Your task to perform on an android device: open app "Move to iOS" (install if not already installed) and enter user name: "Decca@icloud.com" and password: "reabbreviate" Image 0: 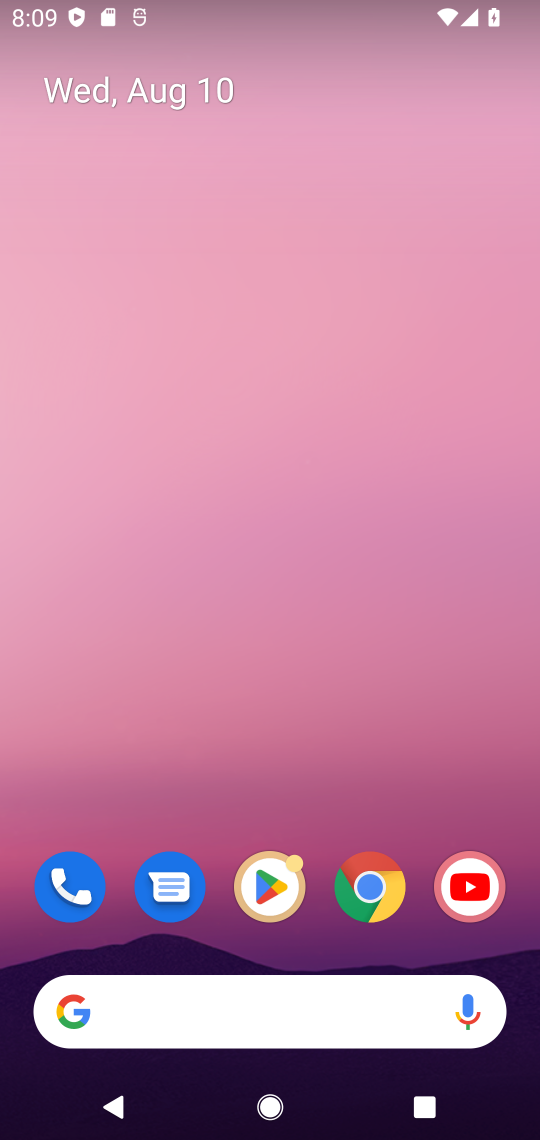
Step 0: drag from (319, 939) to (287, 11)
Your task to perform on an android device: open app "Move to iOS" (install if not already installed) and enter user name: "Decca@icloud.com" and password: "reabbreviate" Image 1: 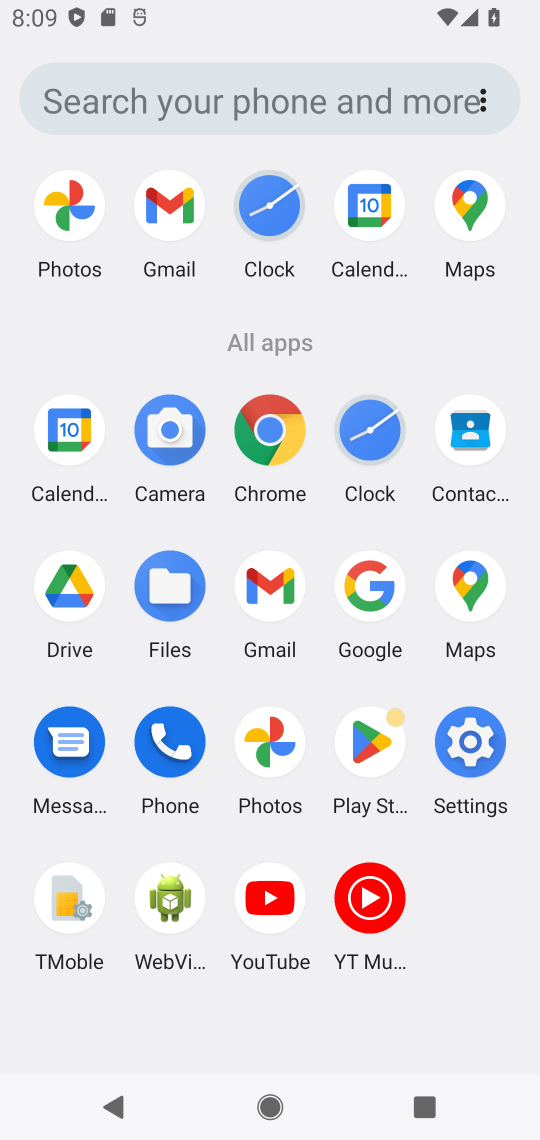
Step 1: click (391, 723)
Your task to perform on an android device: open app "Move to iOS" (install if not already installed) and enter user name: "Decca@icloud.com" and password: "reabbreviate" Image 2: 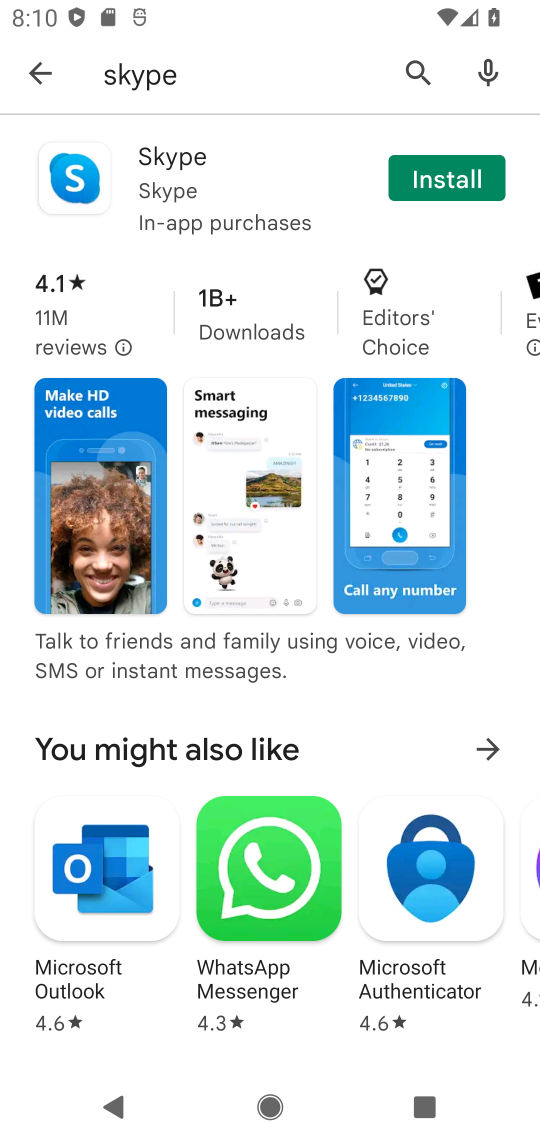
Step 2: click (384, 79)
Your task to perform on an android device: open app "Move to iOS" (install if not already installed) and enter user name: "Decca@icloud.com" and password: "reabbreviate" Image 3: 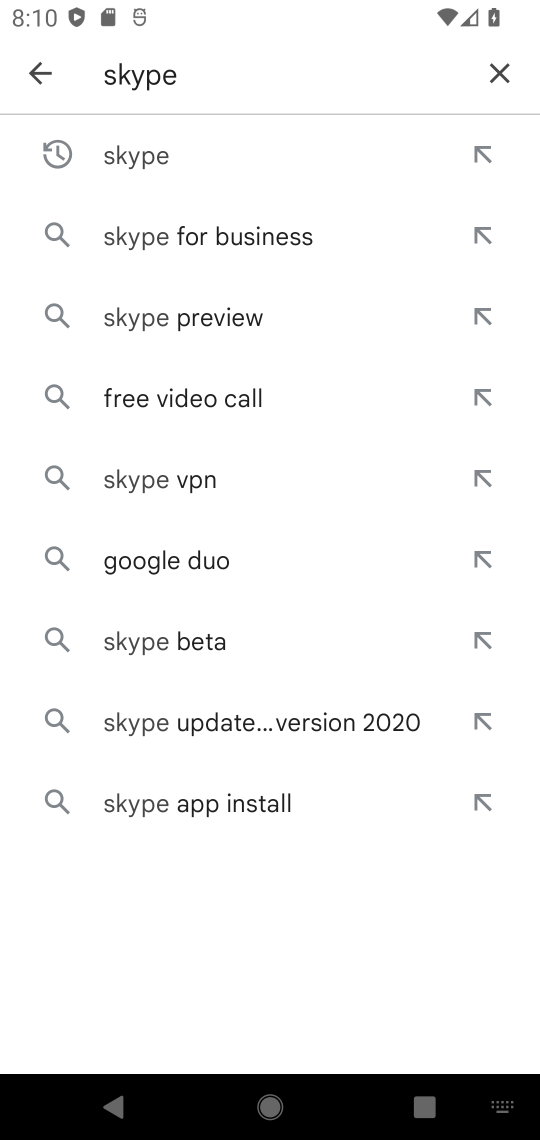
Step 3: click (523, 62)
Your task to perform on an android device: open app "Move to iOS" (install if not already installed) and enter user name: "Decca@icloud.com" and password: "reabbreviate" Image 4: 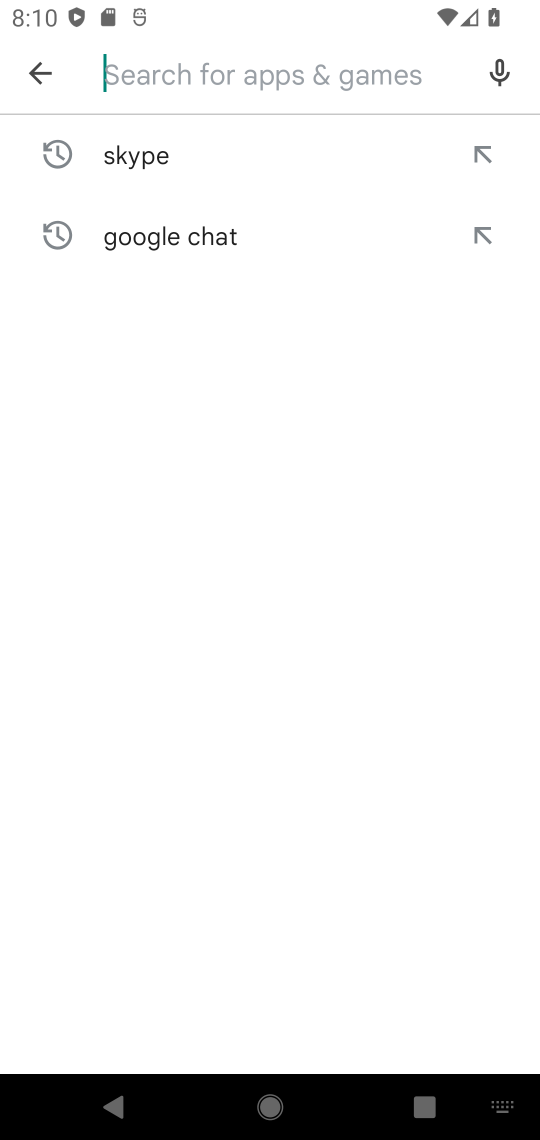
Step 4: type "move iso"
Your task to perform on an android device: open app "Move to iOS" (install if not already installed) and enter user name: "Decca@icloud.com" and password: "reabbreviate" Image 5: 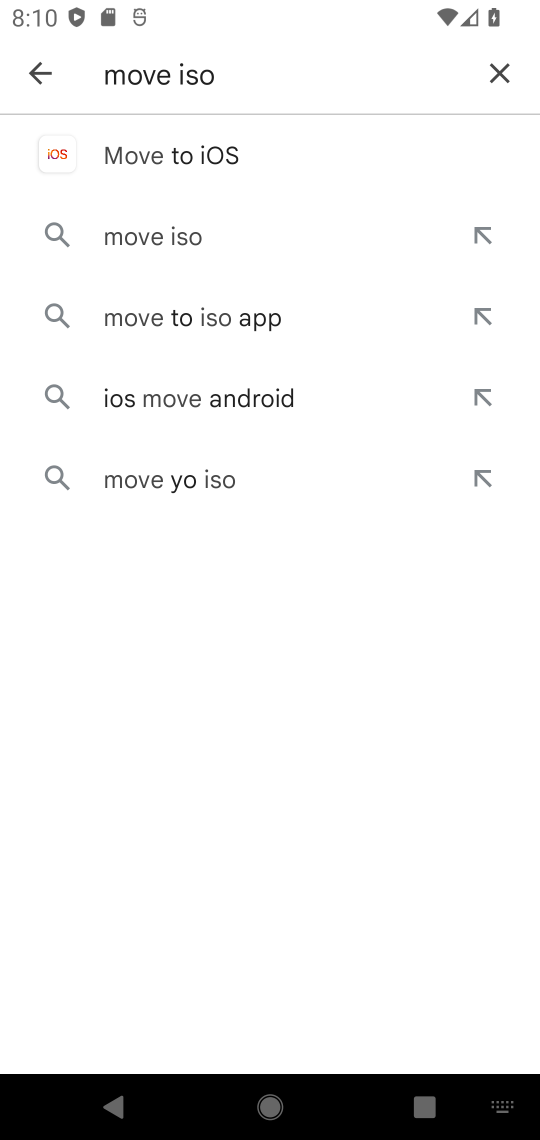
Step 5: click (203, 177)
Your task to perform on an android device: open app "Move to iOS" (install if not already installed) and enter user name: "Decca@icloud.com" and password: "reabbreviate" Image 6: 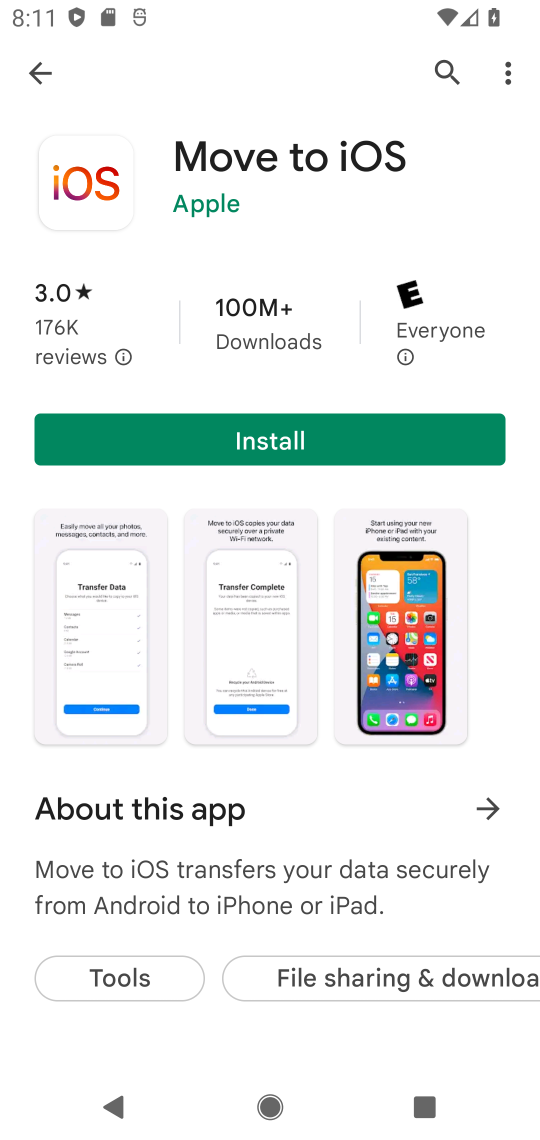
Step 6: click (288, 417)
Your task to perform on an android device: open app "Move to iOS" (install if not already installed) and enter user name: "Decca@icloud.com" and password: "reabbreviate" Image 7: 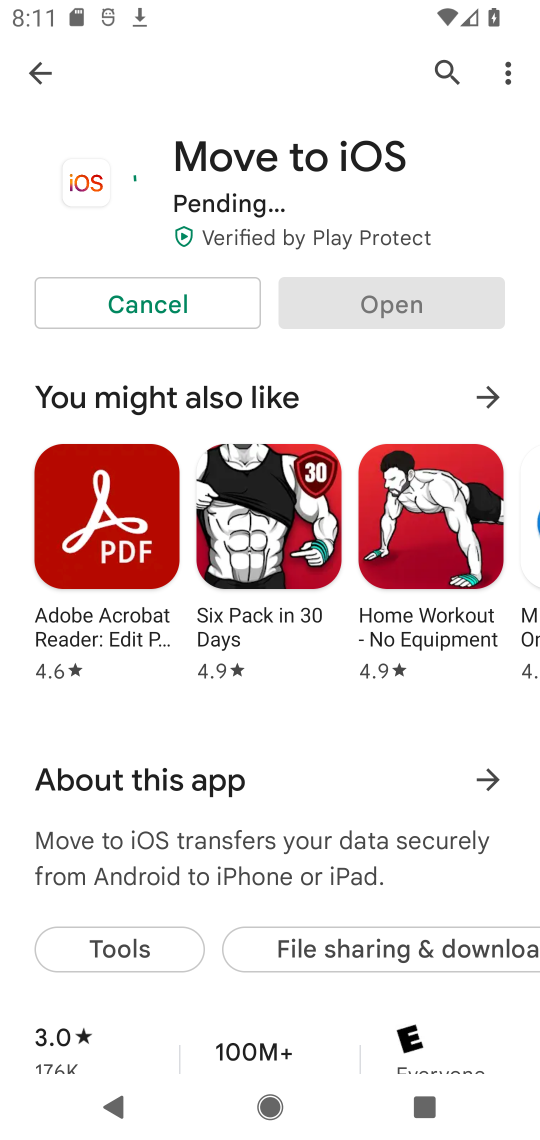
Step 7: task complete